Your task to perform on an android device: Check the weather Image 0: 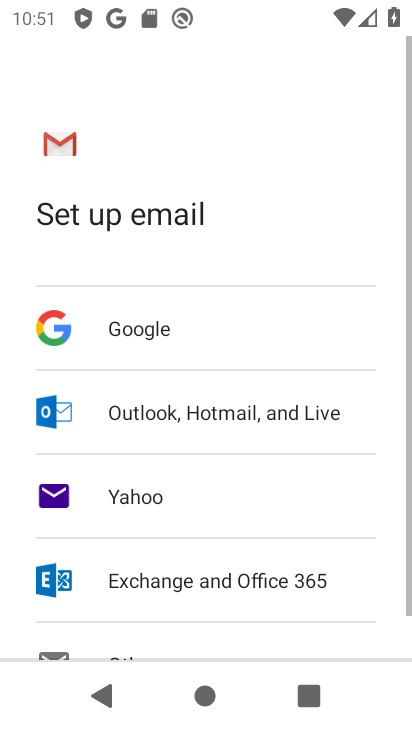
Step 0: press home button
Your task to perform on an android device: Check the weather Image 1: 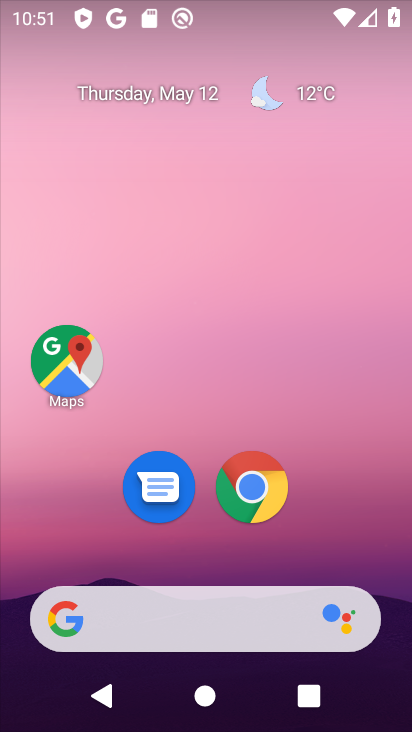
Step 1: click (318, 88)
Your task to perform on an android device: Check the weather Image 2: 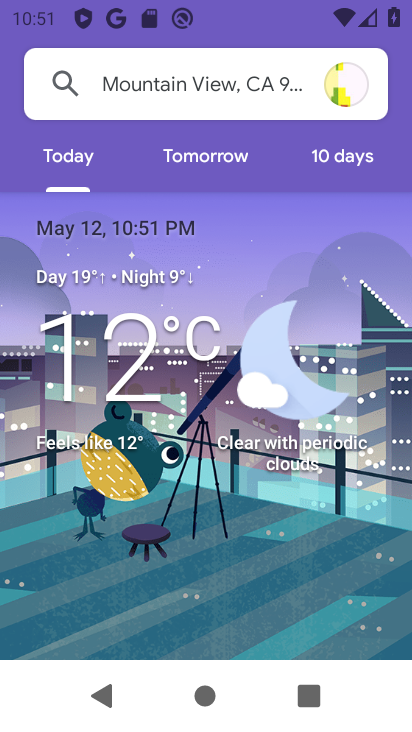
Step 2: task complete